Your task to perform on an android device: Go to Amazon Image 0: 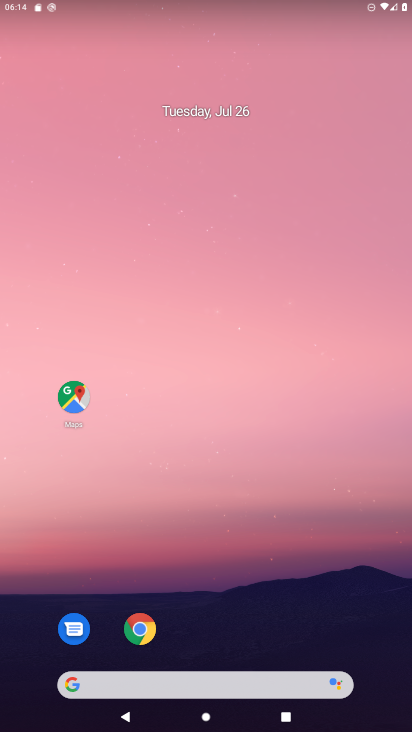
Step 0: click (146, 636)
Your task to perform on an android device: Go to Amazon Image 1: 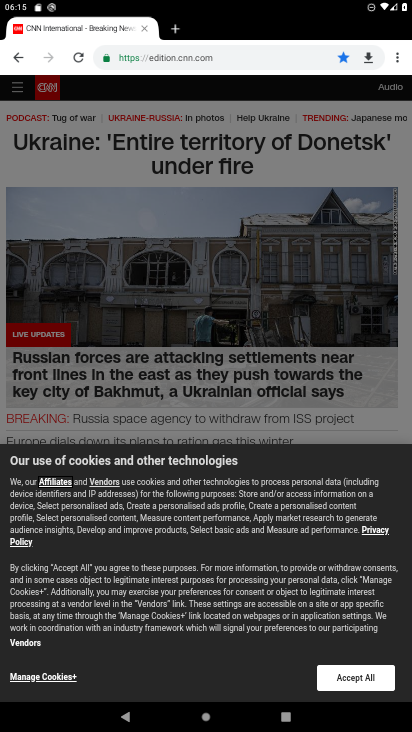
Step 1: click (163, 52)
Your task to perform on an android device: Go to Amazon Image 2: 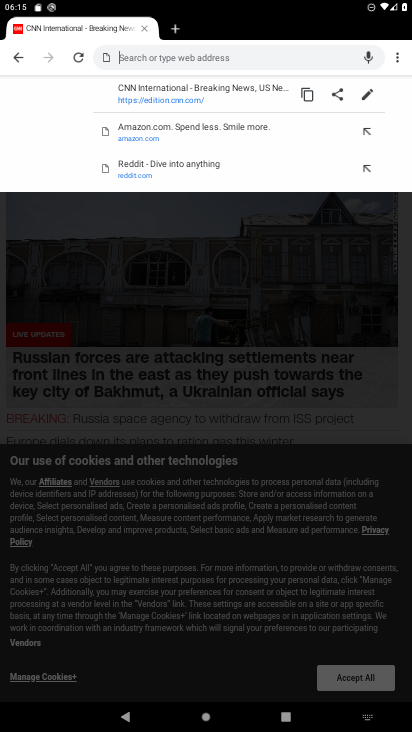
Step 2: click (136, 131)
Your task to perform on an android device: Go to Amazon Image 3: 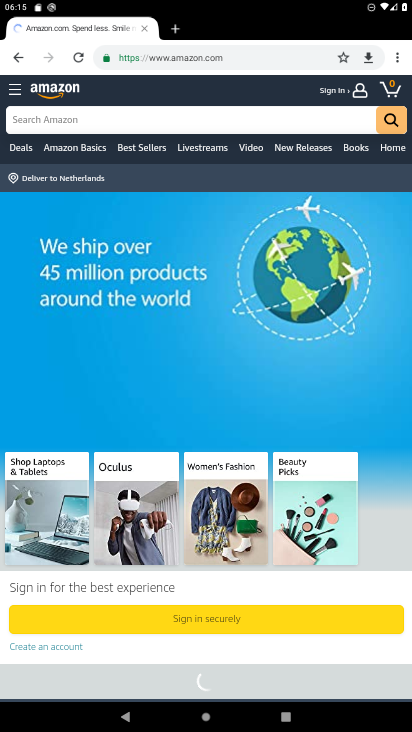
Step 3: task complete